Your task to perform on an android device: turn on sleep mode Image 0: 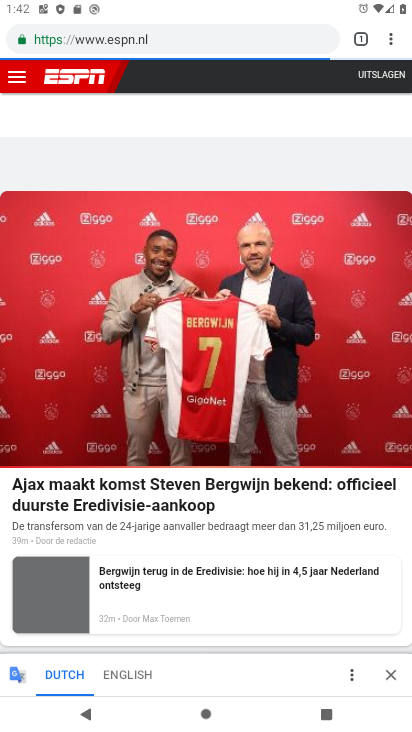
Step 0: drag from (211, 7) to (182, 306)
Your task to perform on an android device: turn on sleep mode Image 1: 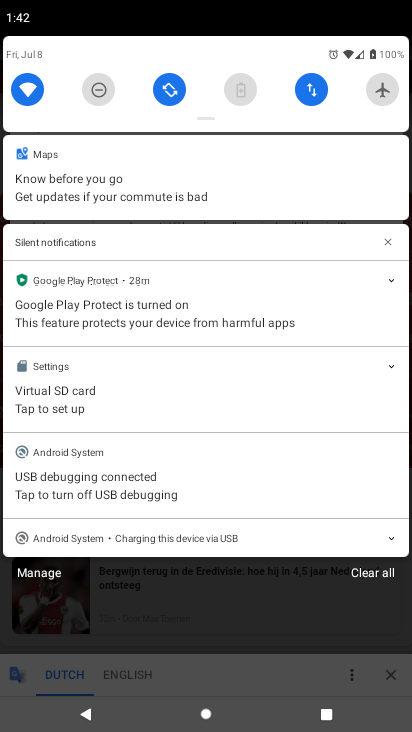
Step 1: drag from (183, 47) to (102, 388)
Your task to perform on an android device: turn on sleep mode Image 2: 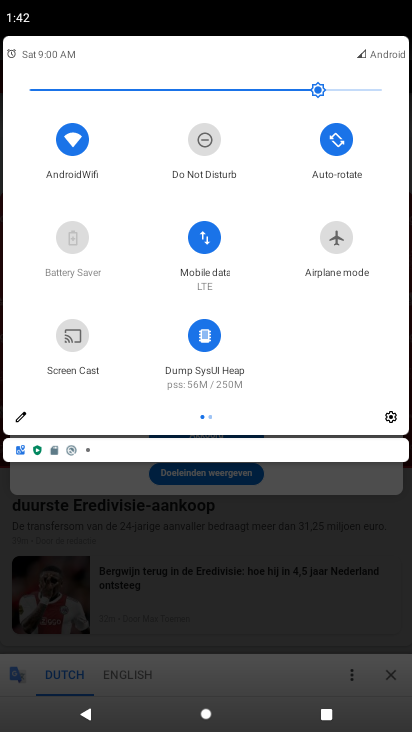
Step 2: click (390, 418)
Your task to perform on an android device: turn on sleep mode Image 3: 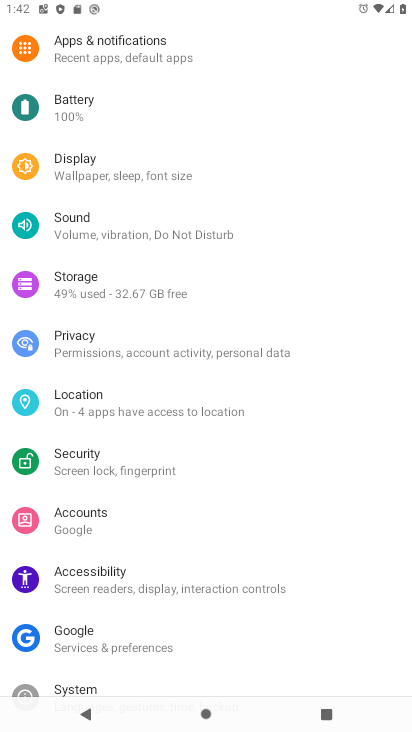
Step 3: task complete